Your task to perform on an android device: read, delete, or share a saved page in the chrome app Image 0: 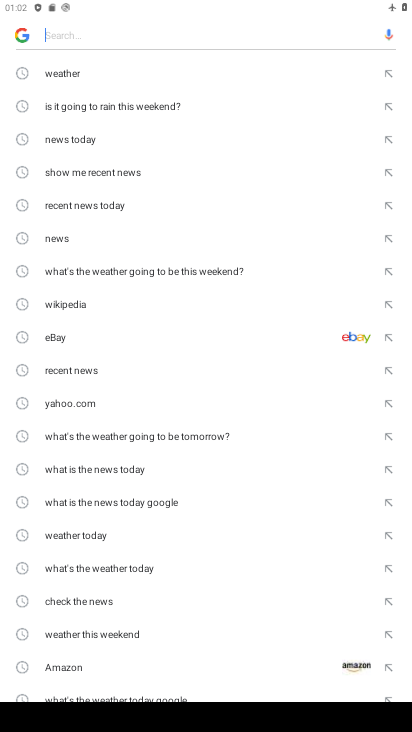
Step 0: press home button
Your task to perform on an android device: read, delete, or share a saved page in the chrome app Image 1: 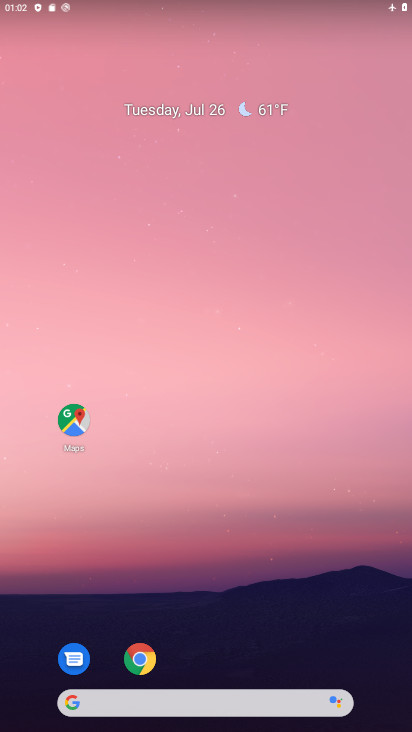
Step 1: drag from (255, 636) to (185, 74)
Your task to perform on an android device: read, delete, or share a saved page in the chrome app Image 2: 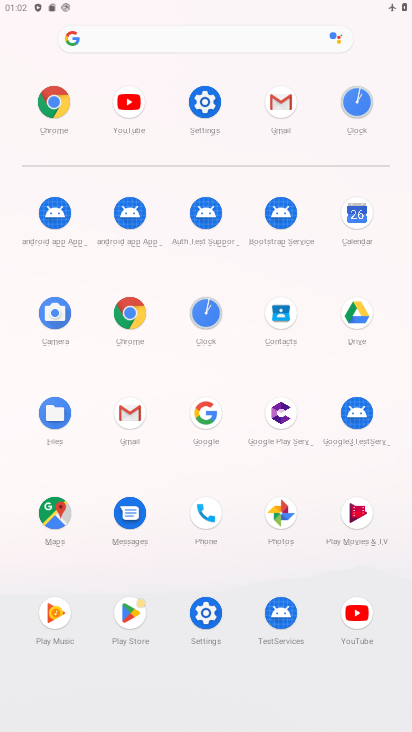
Step 2: click (134, 310)
Your task to perform on an android device: read, delete, or share a saved page in the chrome app Image 3: 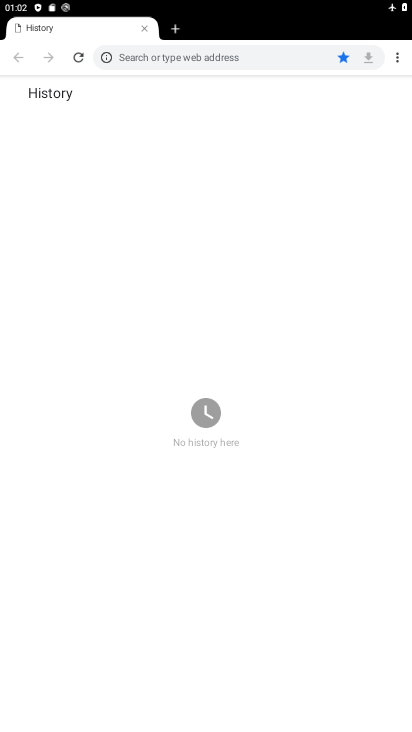
Step 3: task complete